Your task to perform on an android device: Open Google Chrome and open the bookmarks view Image 0: 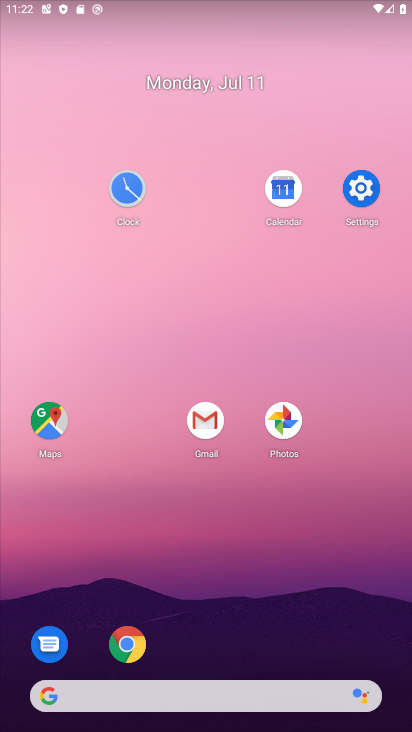
Step 0: click (347, 186)
Your task to perform on an android device: Open Google Chrome and open the bookmarks view Image 1: 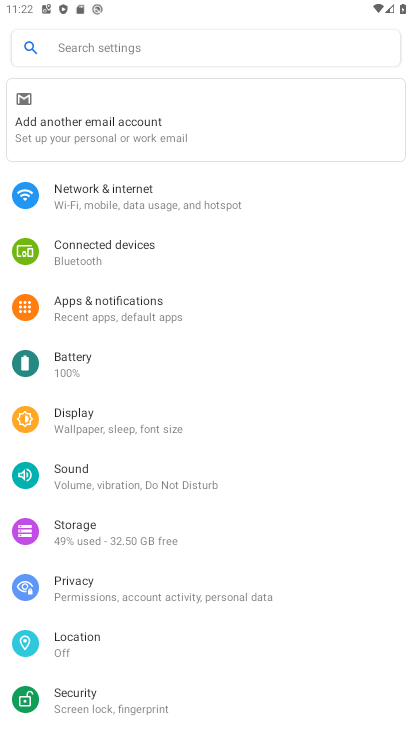
Step 1: press home button
Your task to perform on an android device: Open Google Chrome and open the bookmarks view Image 2: 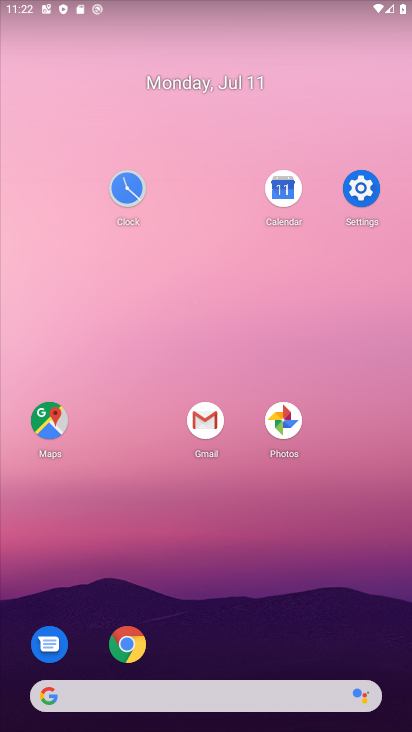
Step 2: click (136, 637)
Your task to perform on an android device: Open Google Chrome and open the bookmarks view Image 3: 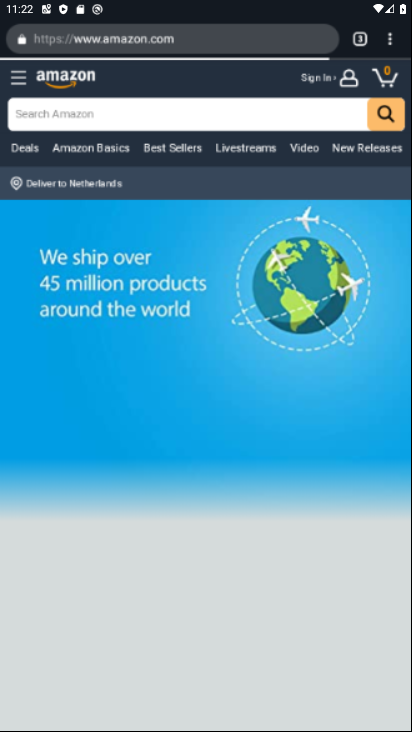
Step 3: click (392, 39)
Your task to perform on an android device: Open Google Chrome and open the bookmarks view Image 4: 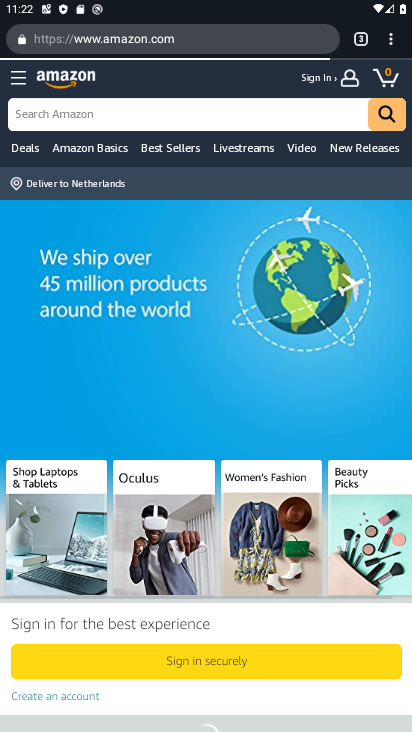
Step 4: click (397, 34)
Your task to perform on an android device: Open Google Chrome and open the bookmarks view Image 5: 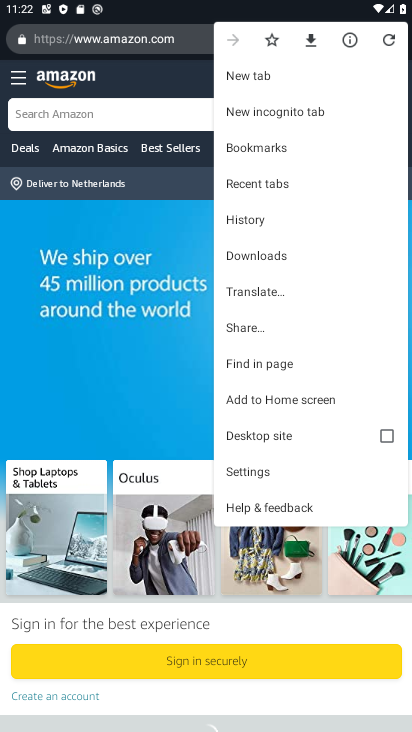
Step 5: click (306, 146)
Your task to perform on an android device: Open Google Chrome and open the bookmarks view Image 6: 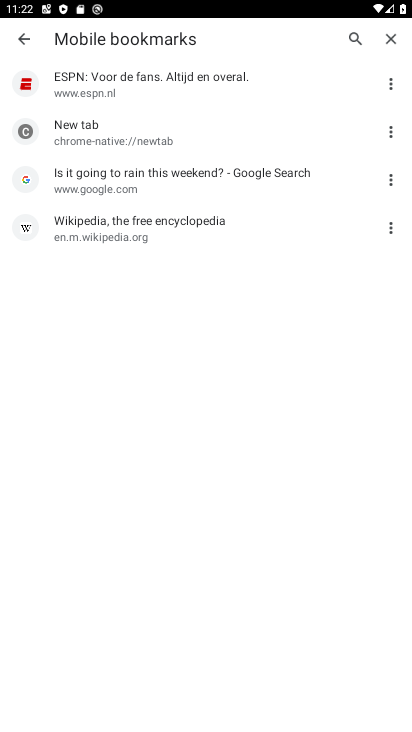
Step 6: task complete